Your task to perform on an android device: Open Youtube and go to the subscriptions tab Image 0: 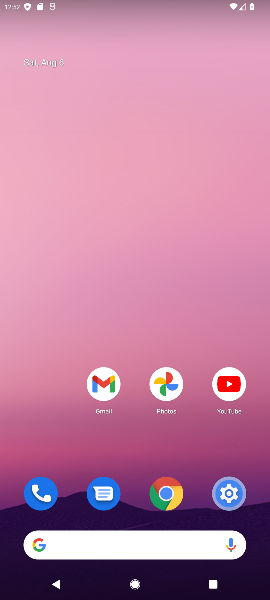
Step 0: click (237, 405)
Your task to perform on an android device: Open Youtube and go to the subscriptions tab Image 1: 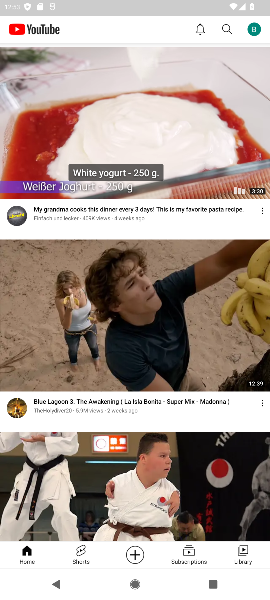
Step 1: click (198, 550)
Your task to perform on an android device: Open Youtube and go to the subscriptions tab Image 2: 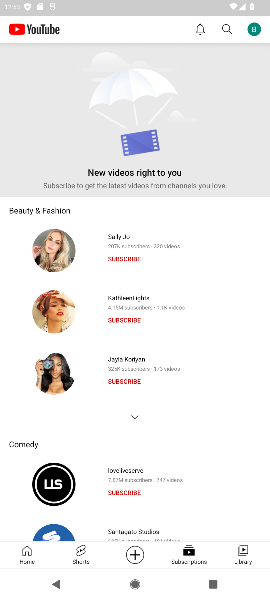
Step 2: task complete